Your task to perform on an android device: Open Chrome and go to settings Image 0: 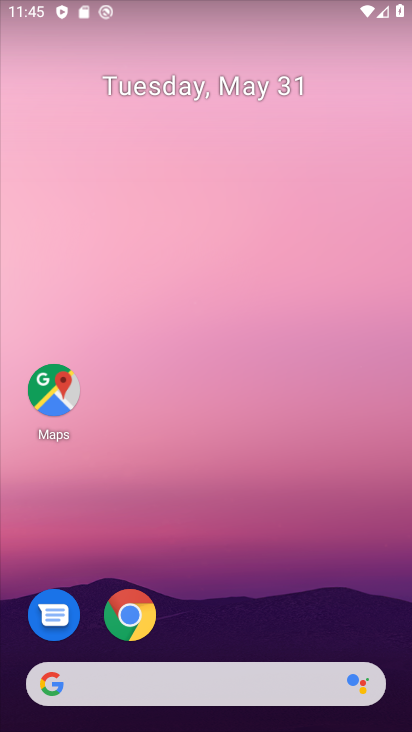
Step 0: drag from (271, 673) to (297, 100)
Your task to perform on an android device: Open Chrome and go to settings Image 1: 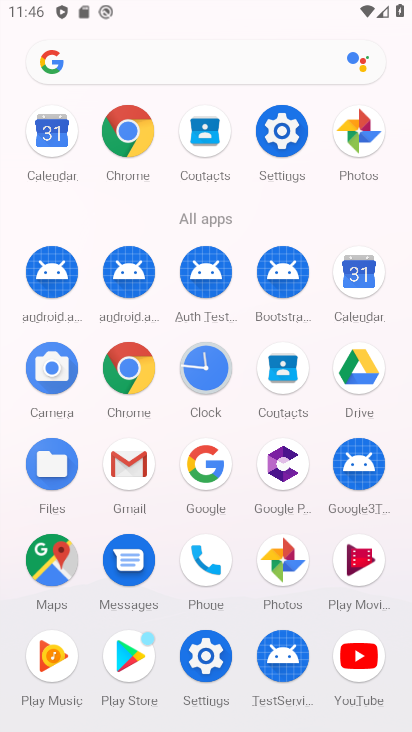
Step 1: click (135, 358)
Your task to perform on an android device: Open Chrome and go to settings Image 2: 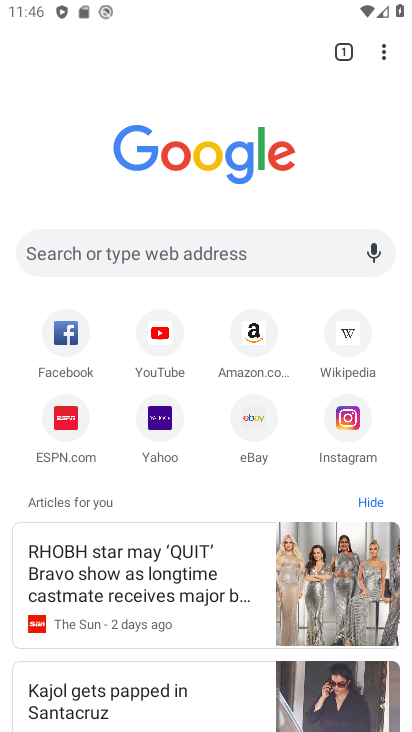
Step 2: task complete